Your task to perform on an android device: Go to Yahoo.com Image 0: 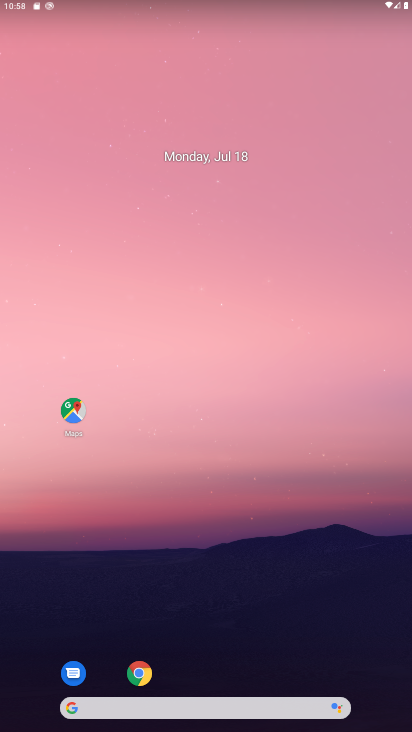
Step 0: click (144, 669)
Your task to perform on an android device: Go to Yahoo.com Image 1: 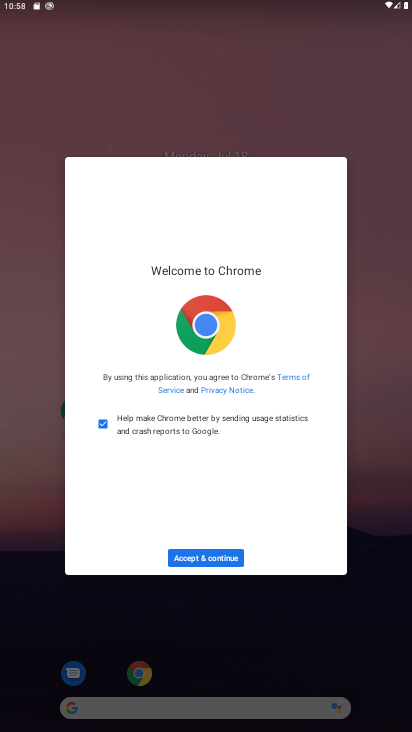
Step 1: click (225, 561)
Your task to perform on an android device: Go to Yahoo.com Image 2: 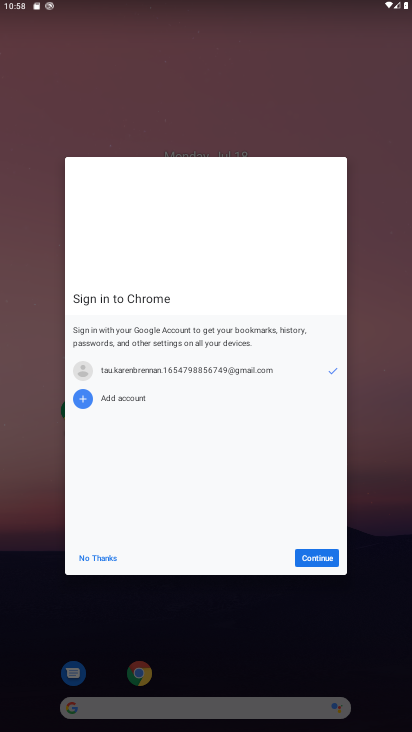
Step 2: click (306, 562)
Your task to perform on an android device: Go to Yahoo.com Image 3: 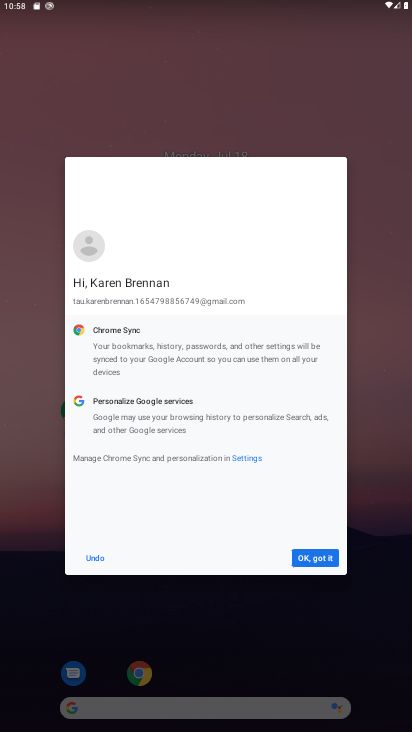
Step 3: click (306, 562)
Your task to perform on an android device: Go to Yahoo.com Image 4: 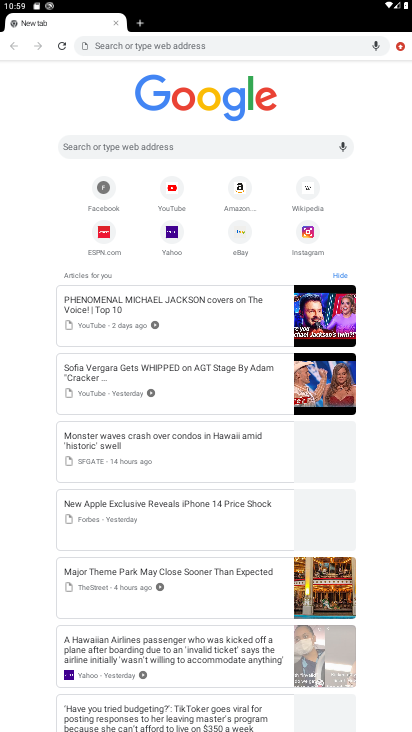
Step 4: click (167, 236)
Your task to perform on an android device: Go to Yahoo.com Image 5: 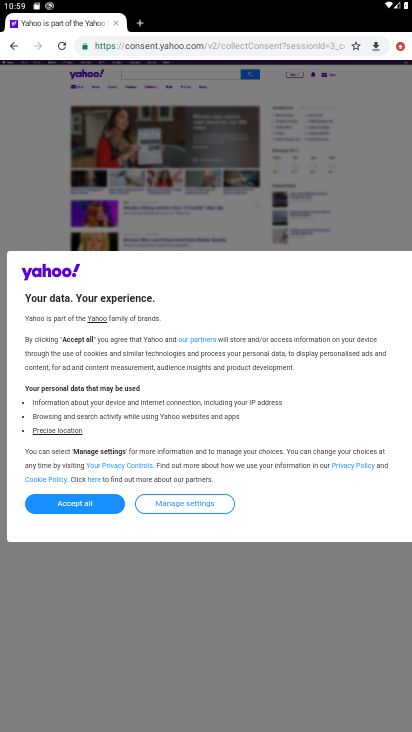
Step 5: task complete